Your task to perform on an android device: Go to Wikipedia Image 0: 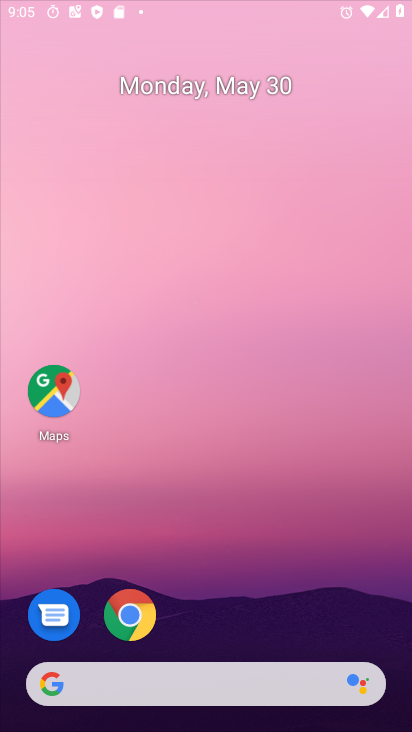
Step 0: drag from (244, 287) to (265, 58)
Your task to perform on an android device: Go to Wikipedia Image 1: 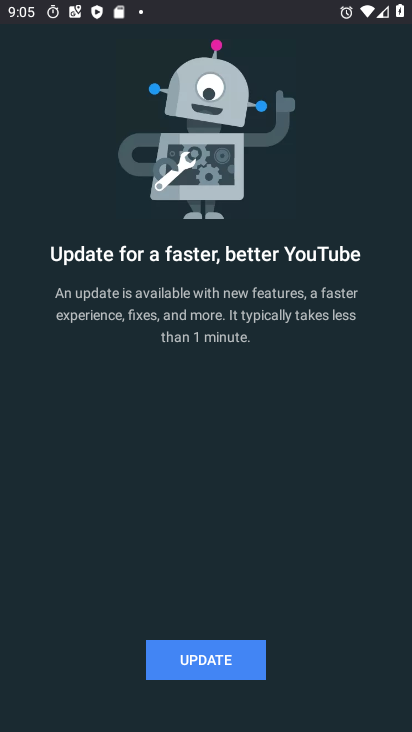
Step 1: press home button
Your task to perform on an android device: Go to Wikipedia Image 2: 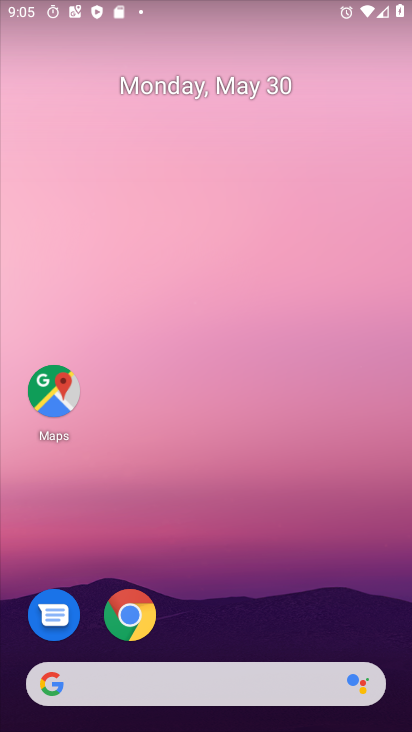
Step 2: click (141, 621)
Your task to perform on an android device: Go to Wikipedia Image 3: 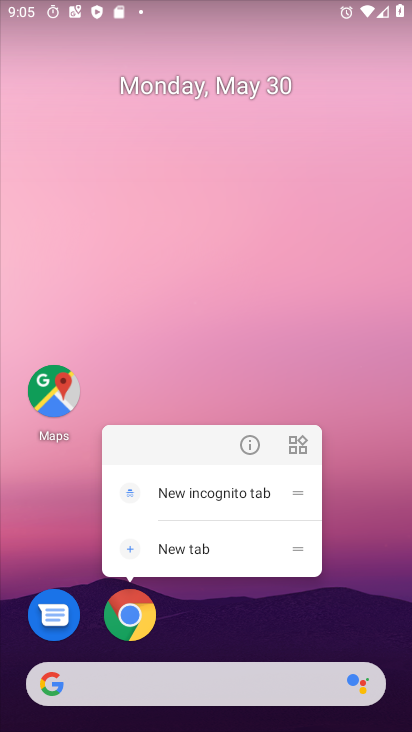
Step 3: click (141, 621)
Your task to perform on an android device: Go to Wikipedia Image 4: 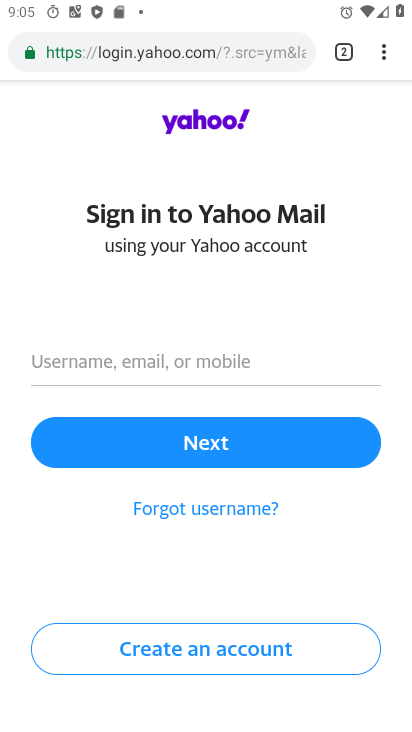
Step 4: click (214, 57)
Your task to perform on an android device: Go to Wikipedia Image 5: 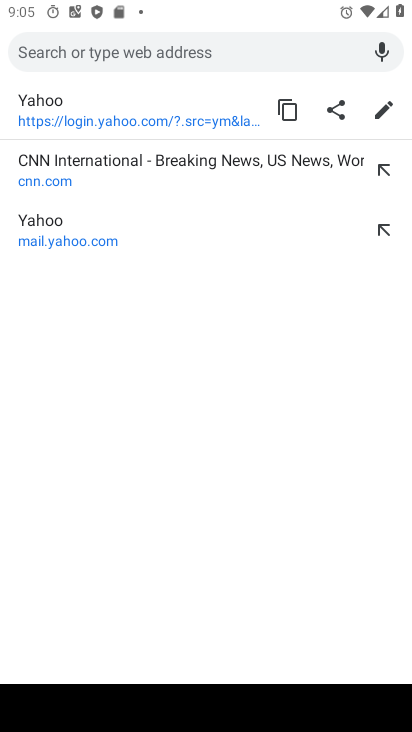
Step 5: type "wikipedia"
Your task to perform on an android device: Go to Wikipedia Image 6: 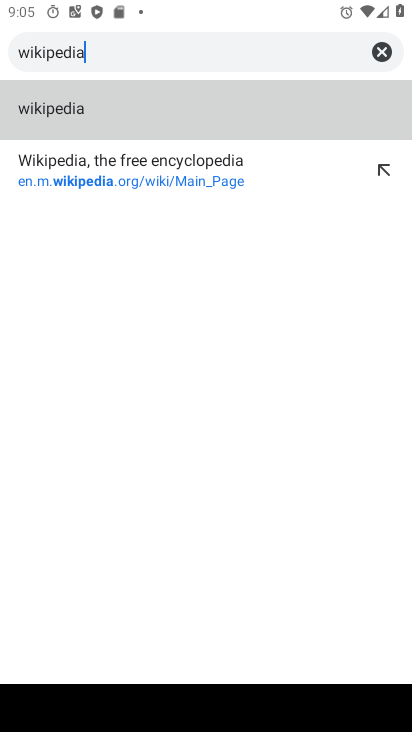
Step 6: click (112, 185)
Your task to perform on an android device: Go to Wikipedia Image 7: 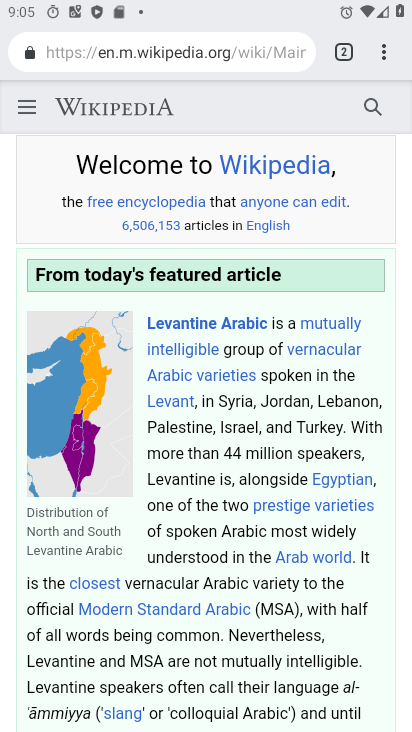
Step 7: task complete